Your task to perform on an android device: toggle javascript in the chrome app Image 0: 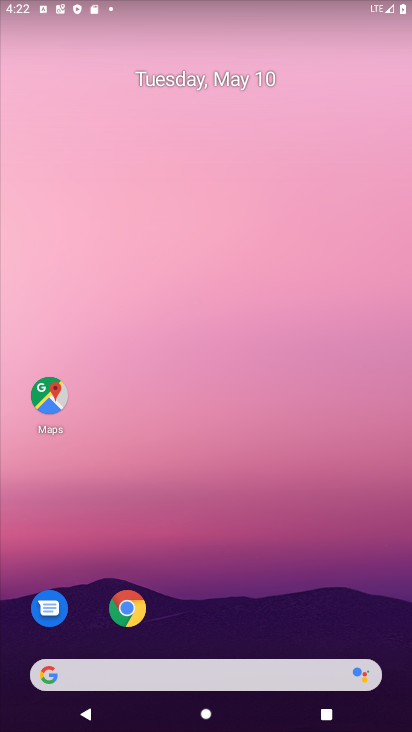
Step 0: click (127, 610)
Your task to perform on an android device: toggle javascript in the chrome app Image 1: 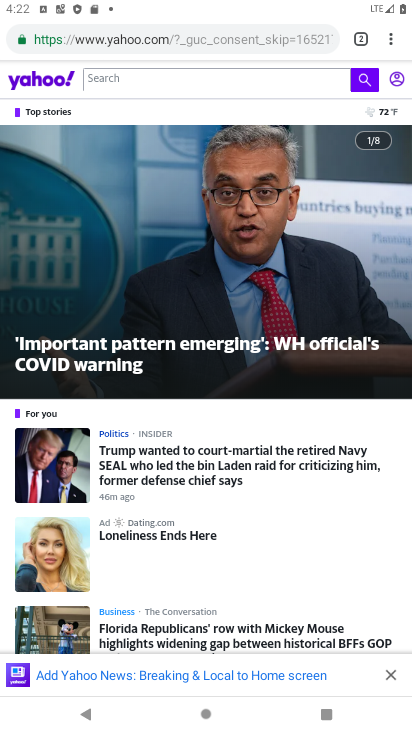
Step 1: click (390, 41)
Your task to perform on an android device: toggle javascript in the chrome app Image 2: 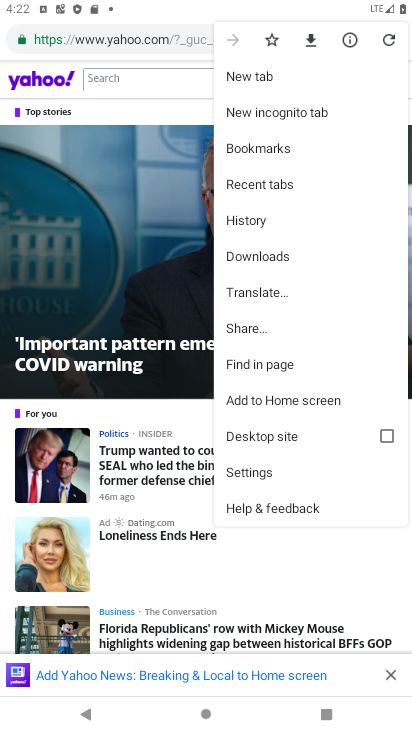
Step 2: click (258, 475)
Your task to perform on an android device: toggle javascript in the chrome app Image 3: 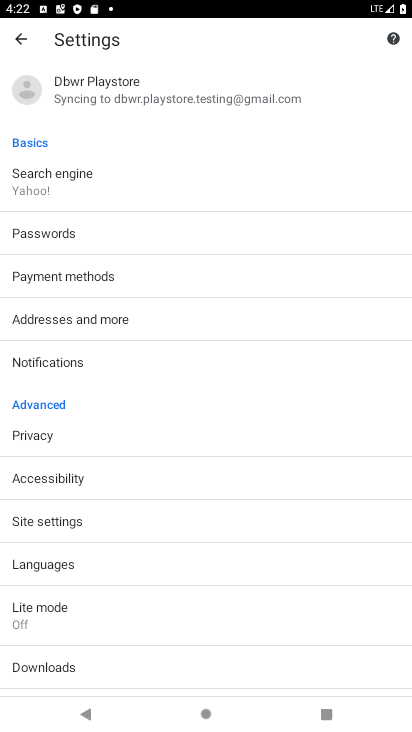
Step 3: click (41, 526)
Your task to perform on an android device: toggle javascript in the chrome app Image 4: 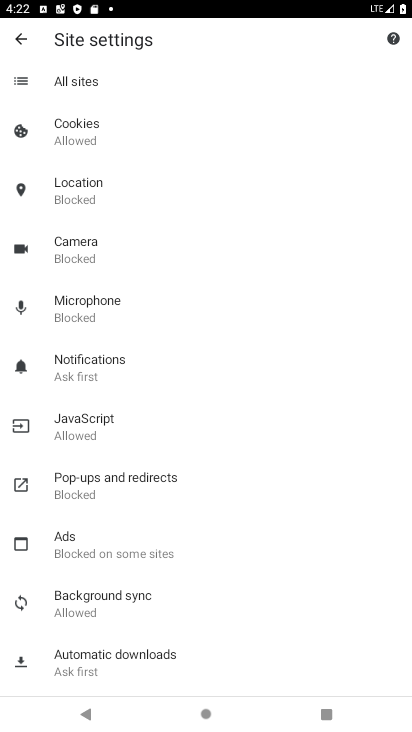
Step 4: click (82, 422)
Your task to perform on an android device: toggle javascript in the chrome app Image 5: 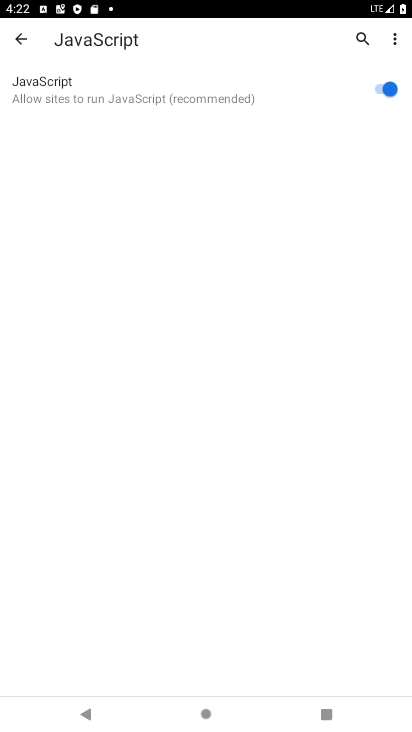
Step 5: click (379, 86)
Your task to perform on an android device: toggle javascript in the chrome app Image 6: 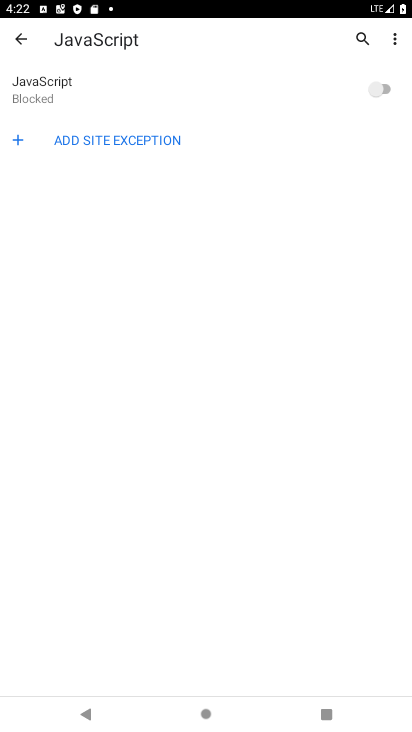
Step 6: task complete